Your task to perform on an android device: What is the speed of a jet? Image 0: 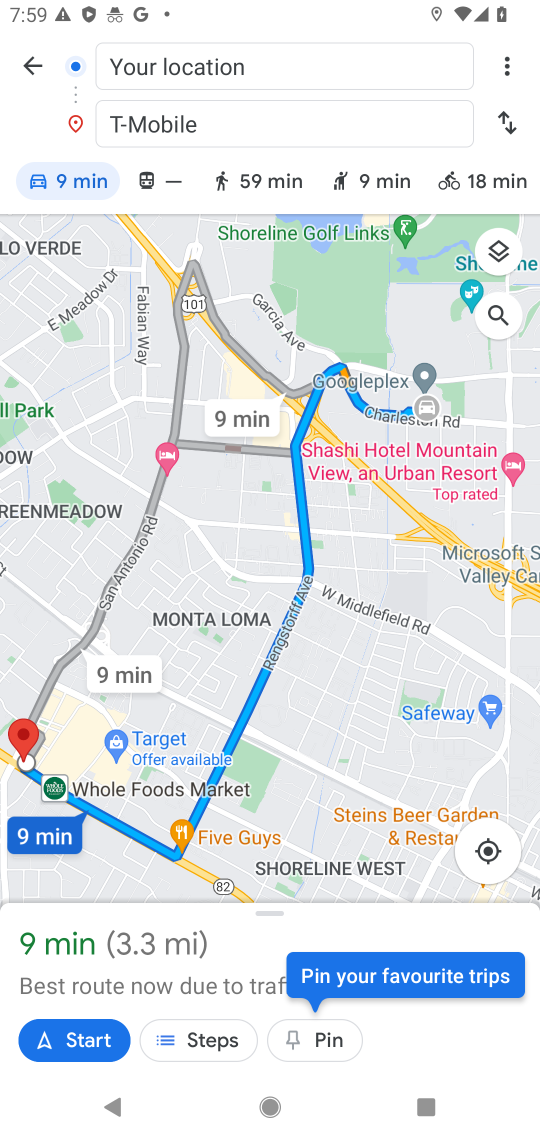
Step 0: press home button
Your task to perform on an android device: What is the speed of a jet? Image 1: 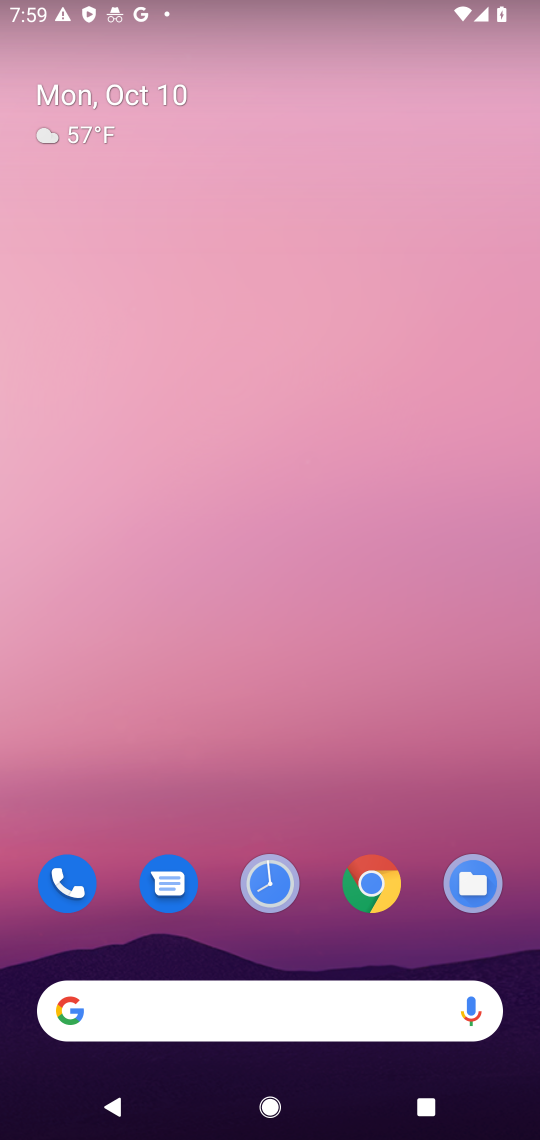
Step 1: drag from (239, 990) to (362, 89)
Your task to perform on an android device: What is the speed of a jet? Image 2: 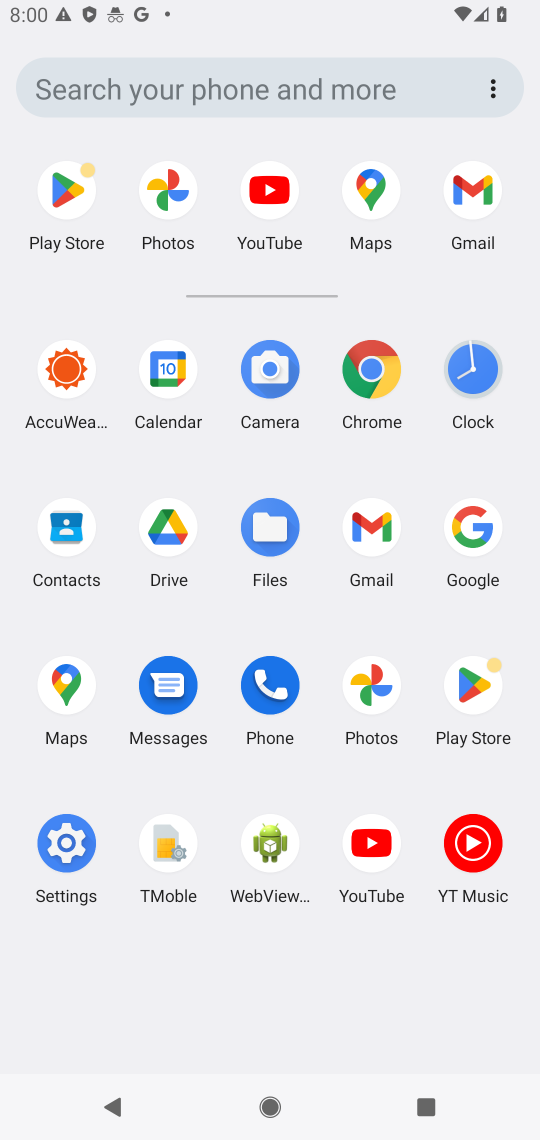
Step 2: click (486, 547)
Your task to perform on an android device: What is the speed of a jet? Image 3: 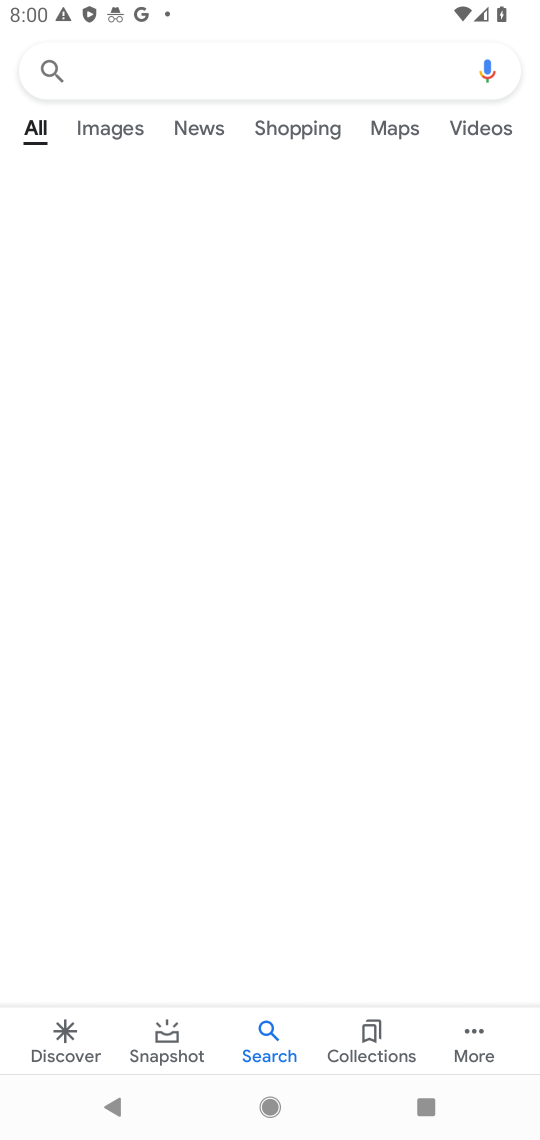
Step 3: click (486, 547)
Your task to perform on an android device: What is the speed of a jet? Image 4: 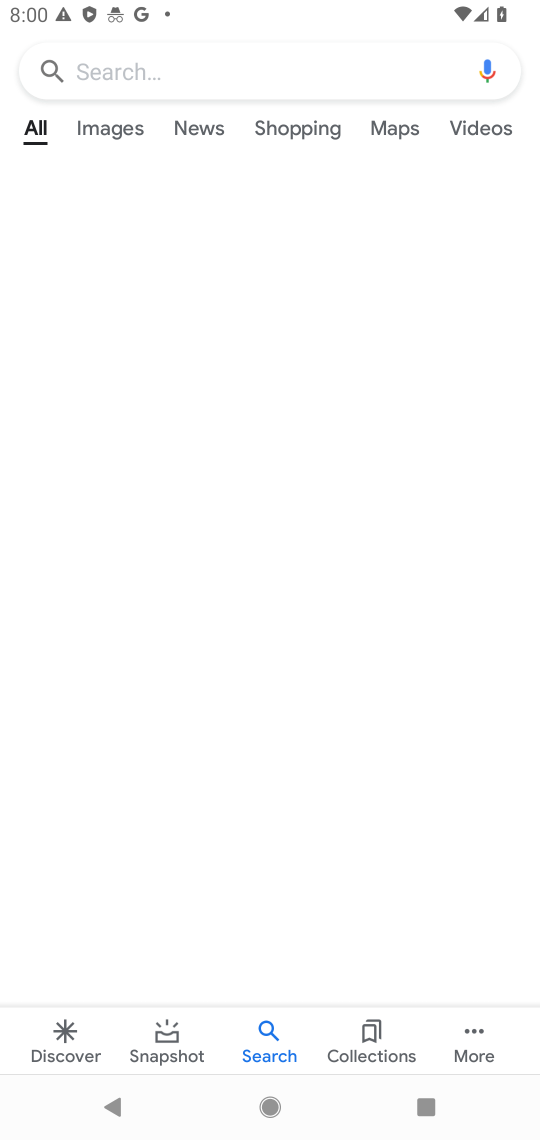
Step 4: click (339, 70)
Your task to perform on an android device: What is the speed of a jet? Image 5: 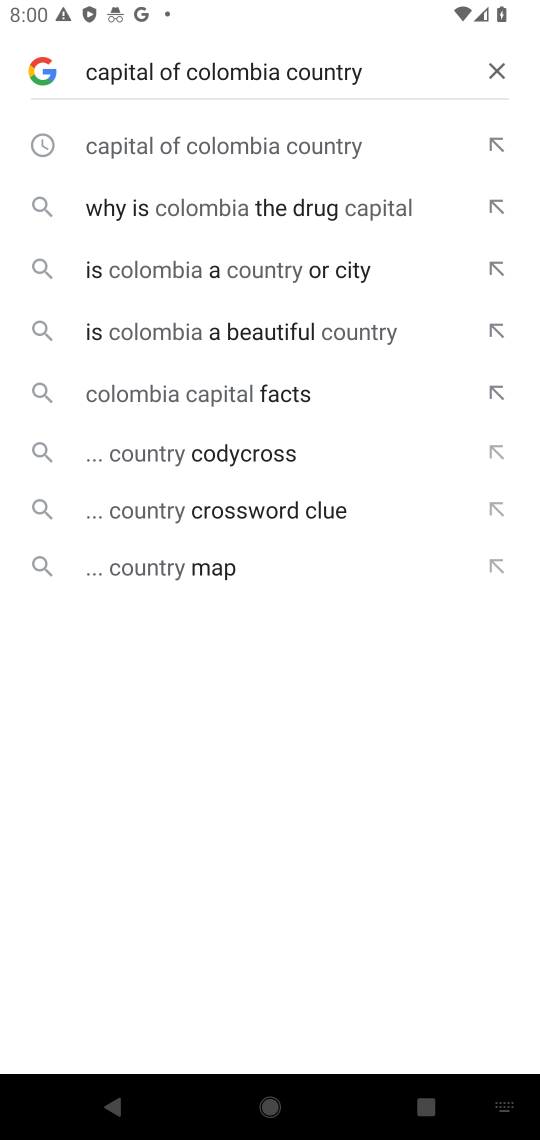
Step 5: click (496, 76)
Your task to perform on an android device: What is the speed of a jet? Image 6: 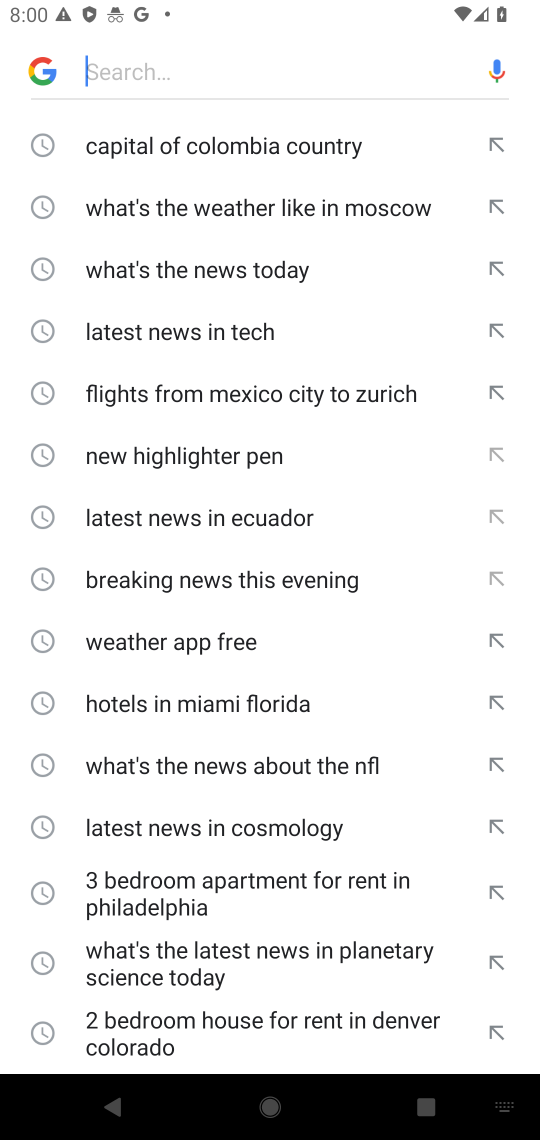
Step 6: type "What is the speed of a jet?"
Your task to perform on an android device: What is the speed of a jet? Image 7: 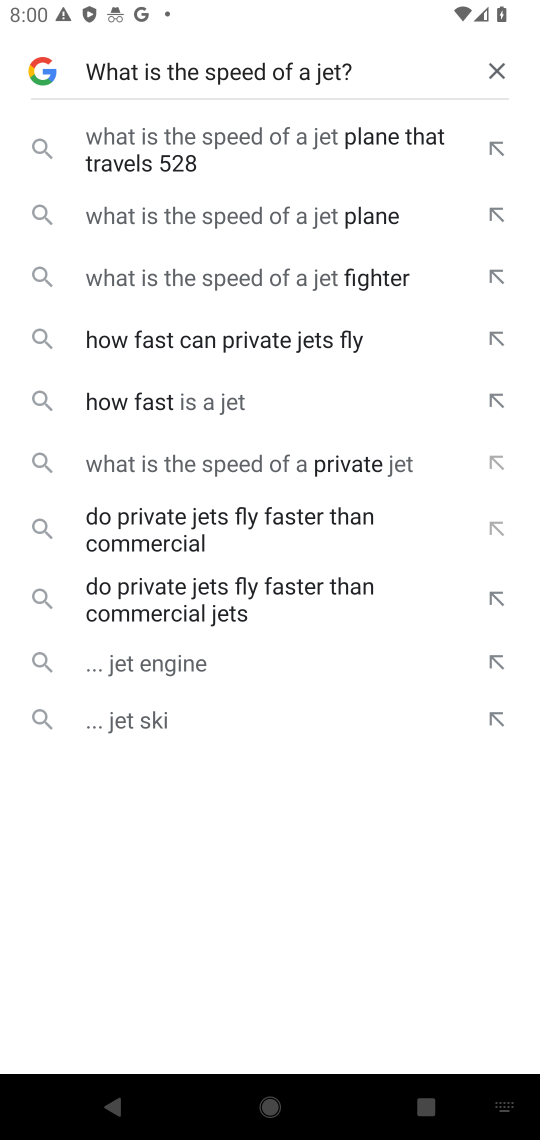
Step 7: click (240, 398)
Your task to perform on an android device: What is the speed of a jet? Image 8: 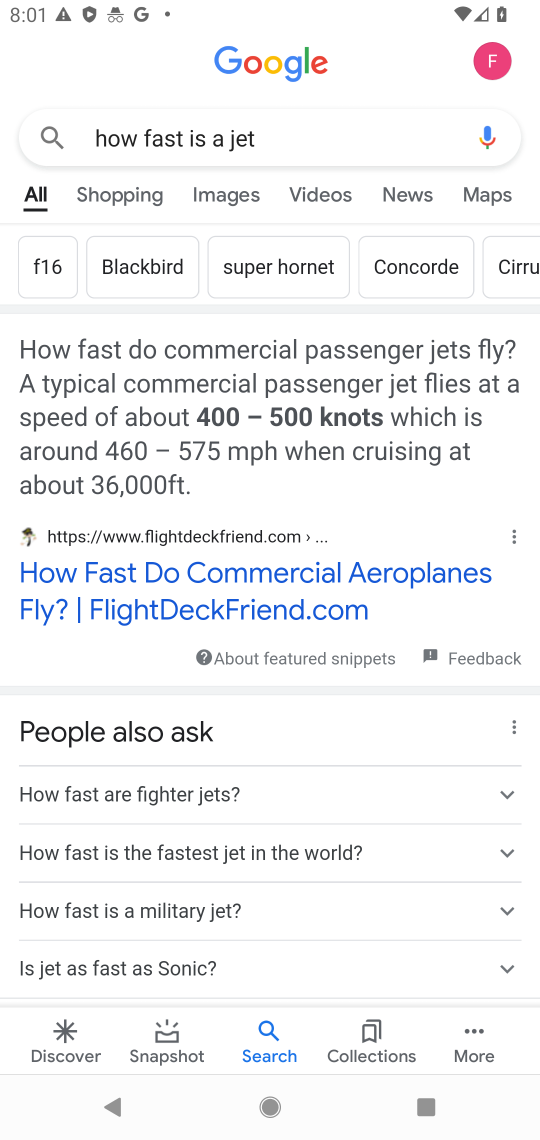
Step 8: task complete